Your task to perform on an android device: open the mobile data screen to see how much data has been used Image 0: 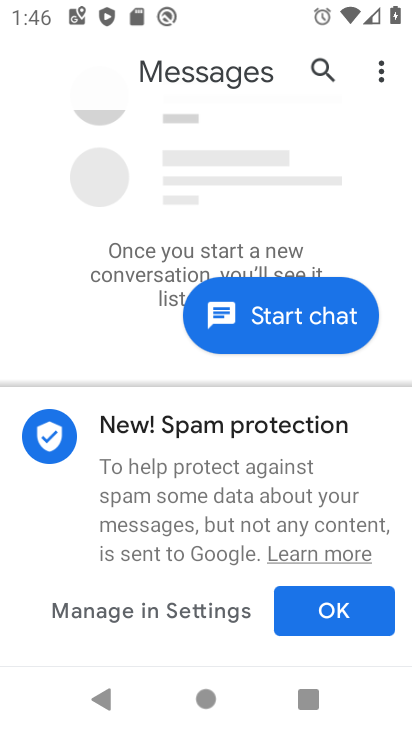
Step 0: press home button
Your task to perform on an android device: open the mobile data screen to see how much data has been used Image 1: 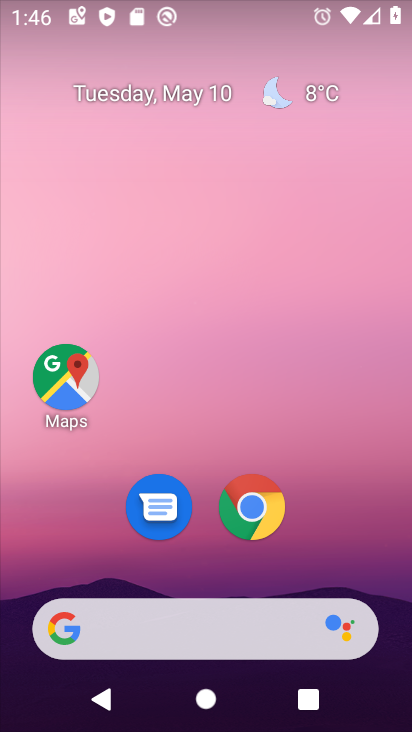
Step 1: drag from (238, 721) to (233, 184)
Your task to perform on an android device: open the mobile data screen to see how much data has been used Image 2: 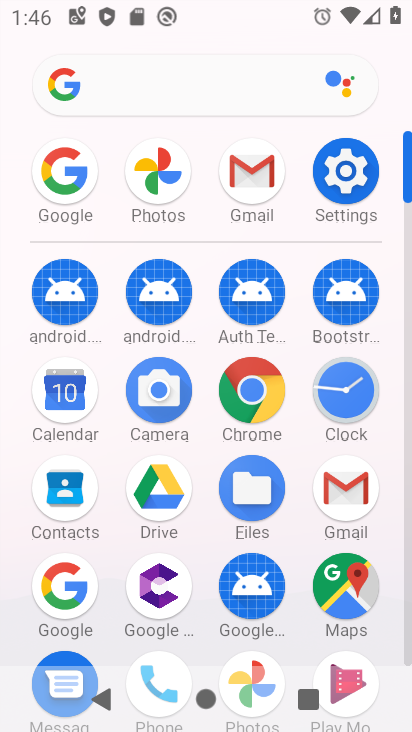
Step 2: click (327, 163)
Your task to perform on an android device: open the mobile data screen to see how much data has been used Image 3: 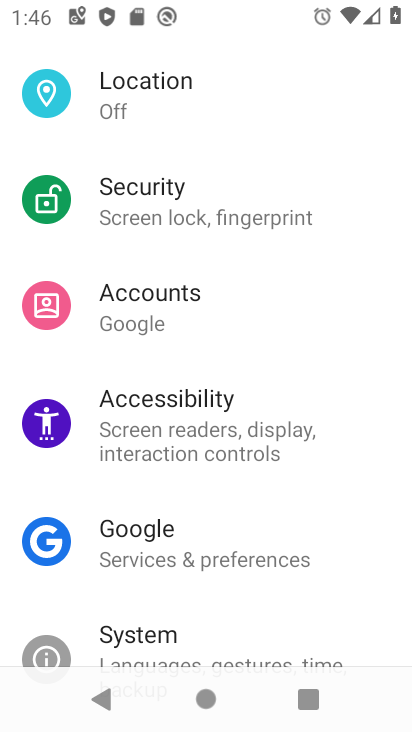
Step 3: drag from (223, 627) to (219, 327)
Your task to perform on an android device: open the mobile data screen to see how much data has been used Image 4: 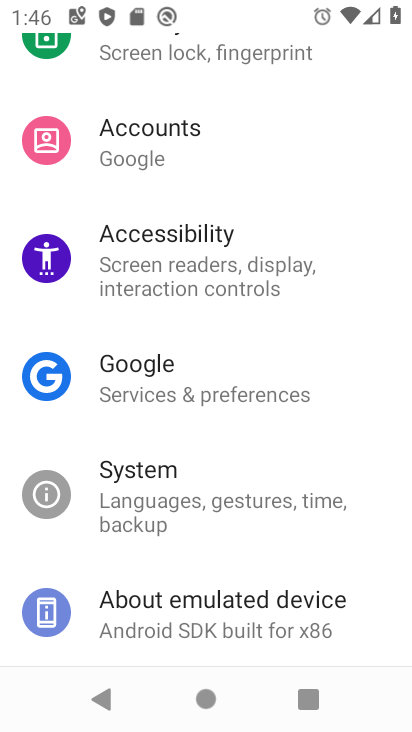
Step 4: drag from (235, 114) to (234, 569)
Your task to perform on an android device: open the mobile data screen to see how much data has been used Image 5: 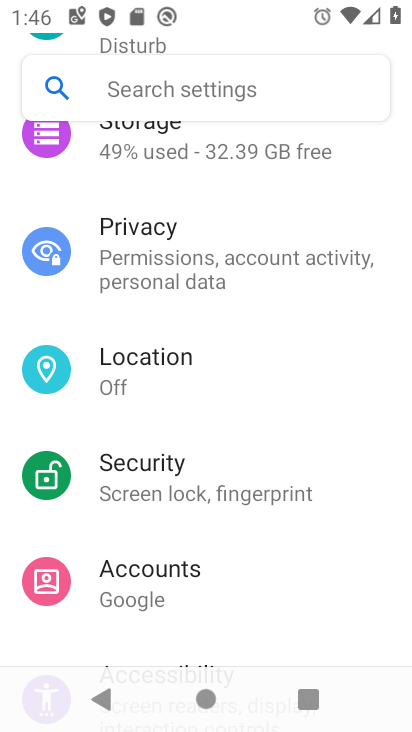
Step 5: drag from (254, 208) to (240, 621)
Your task to perform on an android device: open the mobile data screen to see how much data has been used Image 6: 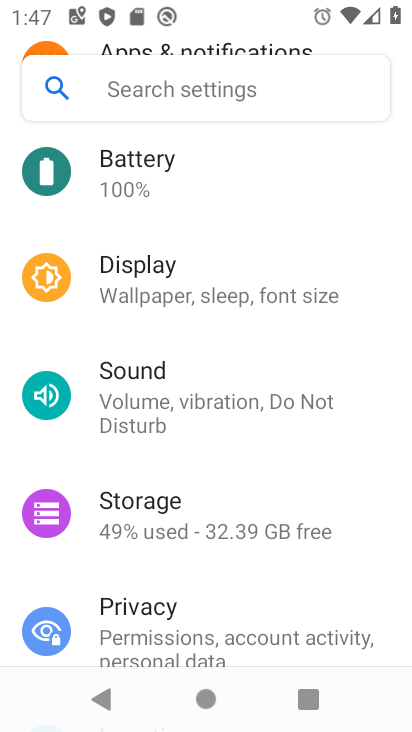
Step 6: drag from (256, 218) to (248, 595)
Your task to perform on an android device: open the mobile data screen to see how much data has been used Image 7: 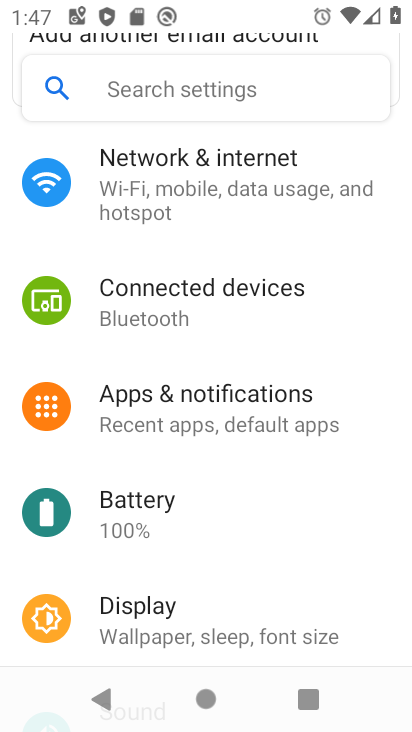
Step 7: click (183, 172)
Your task to perform on an android device: open the mobile data screen to see how much data has been used Image 8: 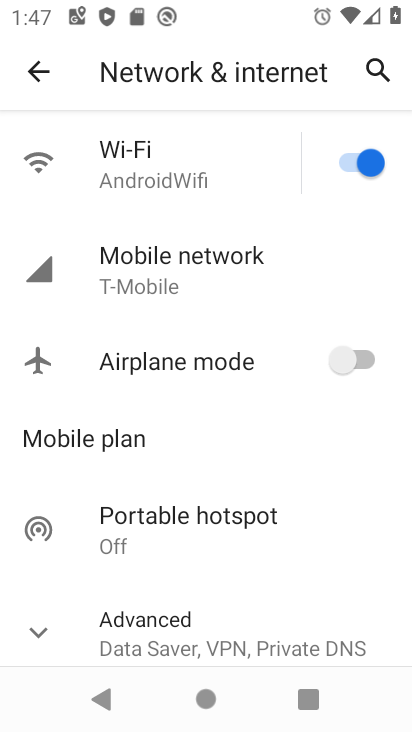
Step 8: drag from (195, 623) to (195, 442)
Your task to perform on an android device: open the mobile data screen to see how much data has been used Image 9: 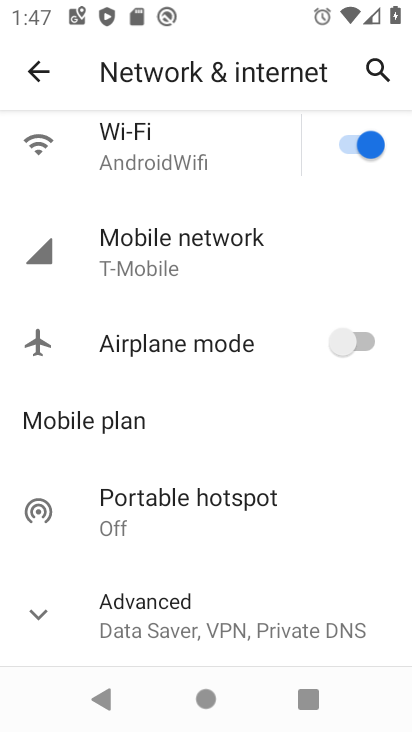
Step 9: click (164, 256)
Your task to perform on an android device: open the mobile data screen to see how much data has been used Image 10: 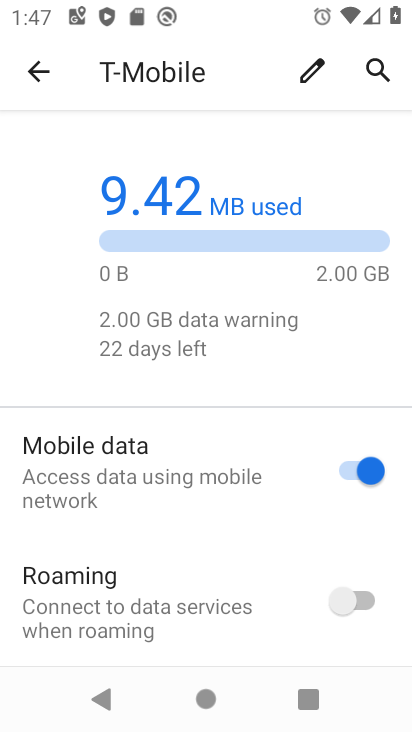
Step 10: drag from (127, 635) to (129, 319)
Your task to perform on an android device: open the mobile data screen to see how much data has been used Image 11: 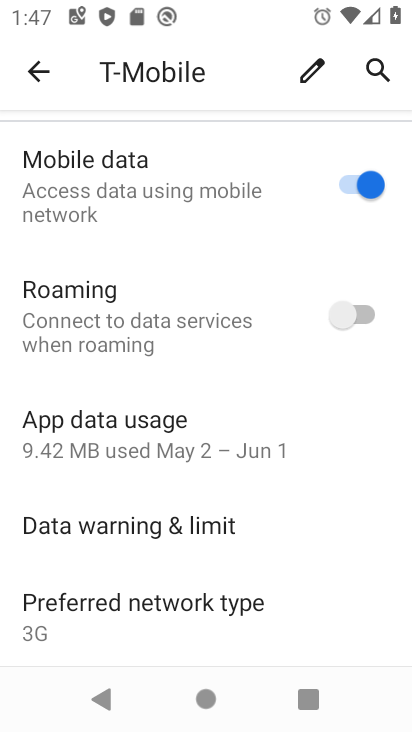
Step 11: click (118, 445)
Your task to perform on an android device: open the mobile data screen to see how much data has been used Image 12: 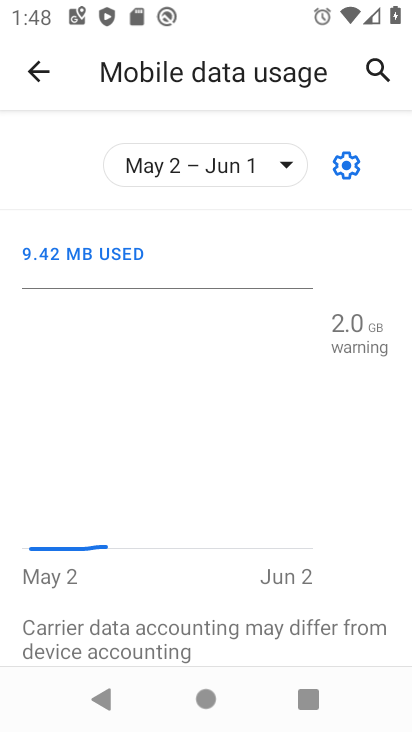
Step 12: task complete